Your task to perform on an android device: find which apps use the phone's location Image 0: 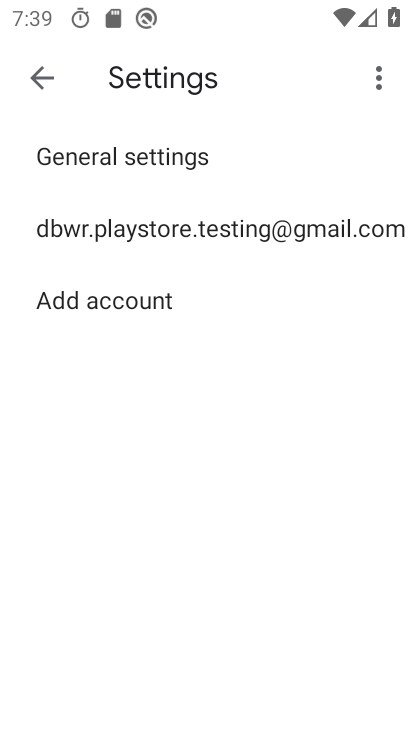
Step 0: press home button
Your task to perform on an android device: find which apps use the phone's location Image 1: 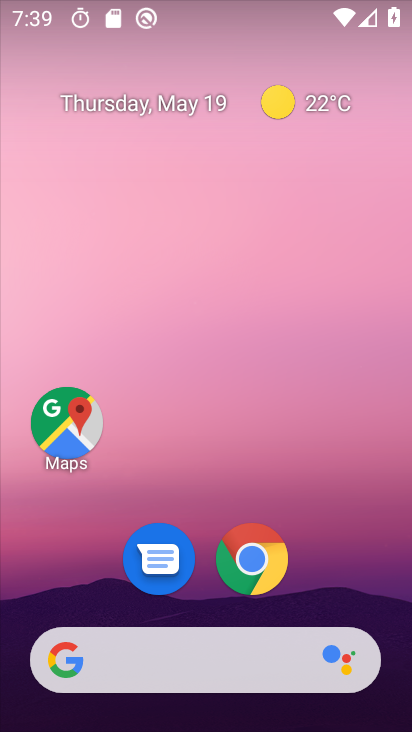
Step 1: drag from (199, 605) to (238, 1)
Your task to perform on an android device: find which apps use the phone's location Image 2: 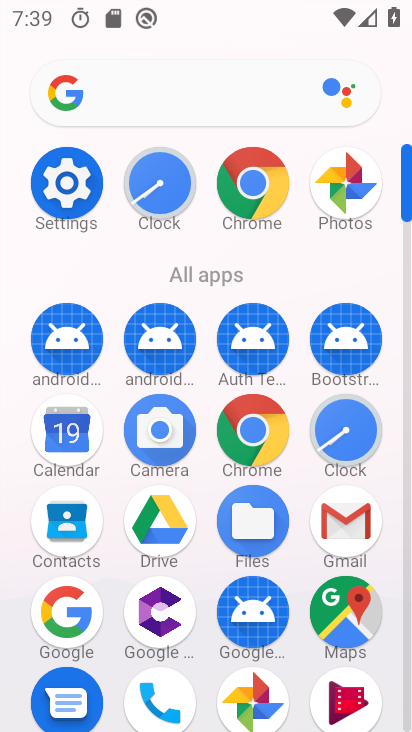
Step 2: click (53, 192)
Your task to perform on an android device: find which apps use the phone's location Image 3: 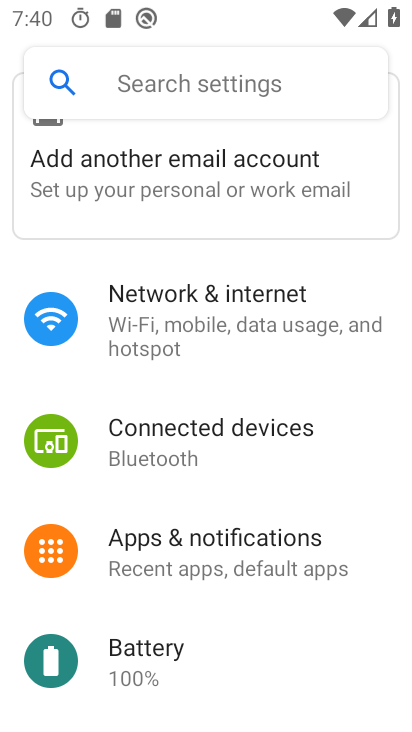
Step 3: drag from (225, 630) to (242, 236)
Your task to perform on an android device: find which apps use the phone's location Image 4: 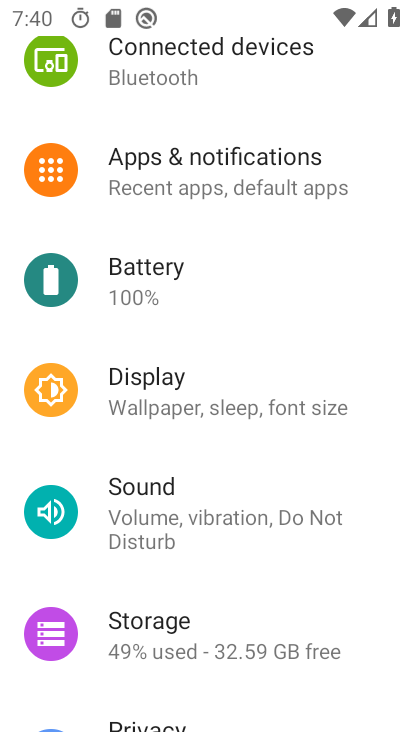
Step 4: drag from (173, 457) to (192, 199)
Your task to perform on an android device: find which apps use the phone's location Image 5: 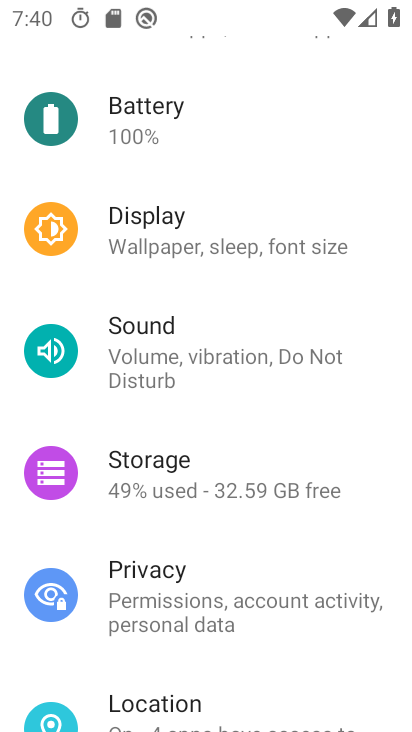
Step 5: click (166, 698)
Your task to perform on an android device: find which apps use the phone's location Image 6: 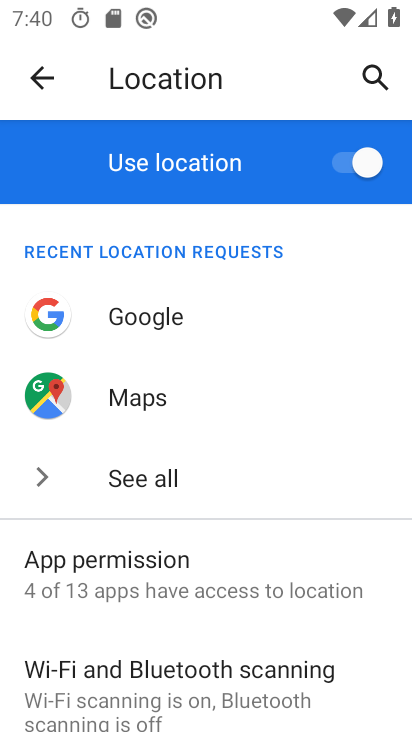
Step 6: click (194, 562)
Your task to perform on an android device: find which apps use the phone's location Image 7: 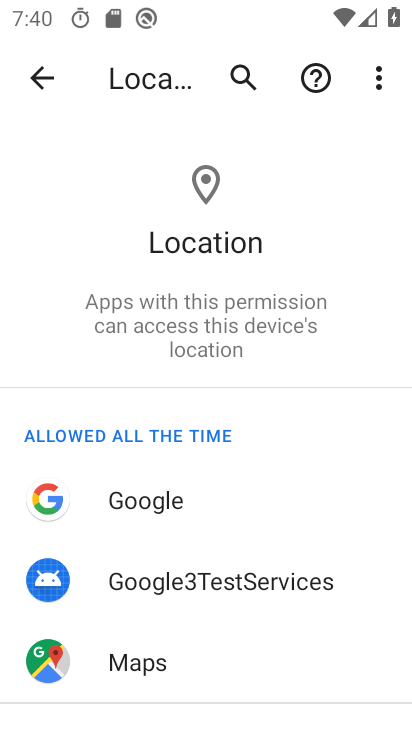
Step 7: task complete